Your task to perform on an android device: Open Wikipedia Image 0: 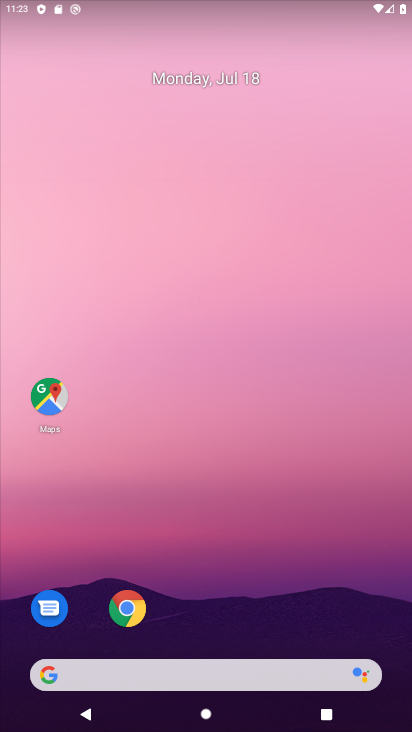
Step 0: click (126, 609)
Your task to perform on an android device: Open Wikipedia Image 1: 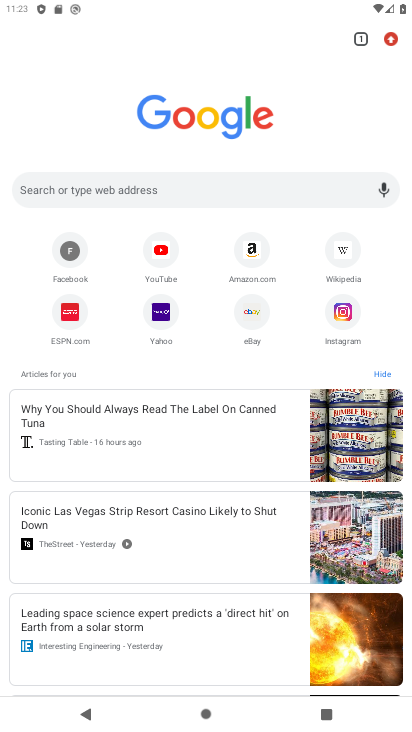
Step 1: click (343, 250)
Your task to perform on an android device: Open Wikipedia Image 2: 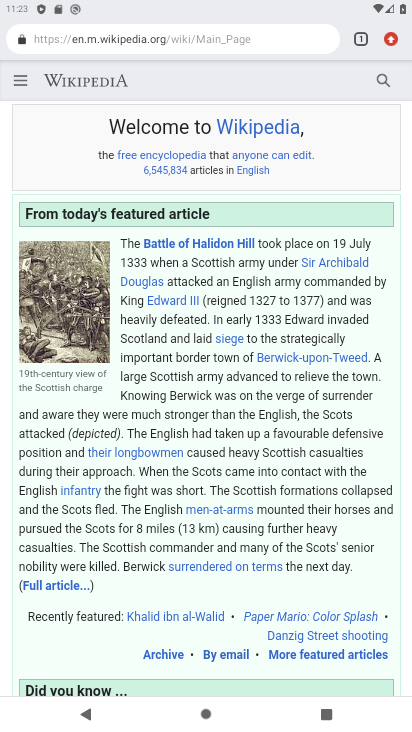
Step 2: task complete